Your task to perform on an android device: What's the weather? Image 0: 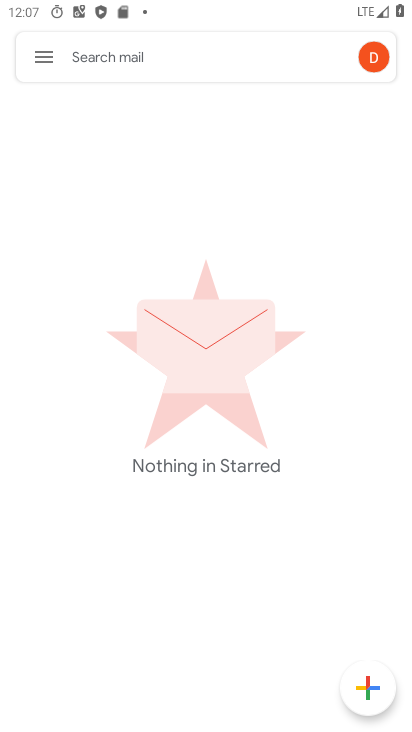
Step 0: press home button
Your task to perform on an android device: What's the weather? Image 1: 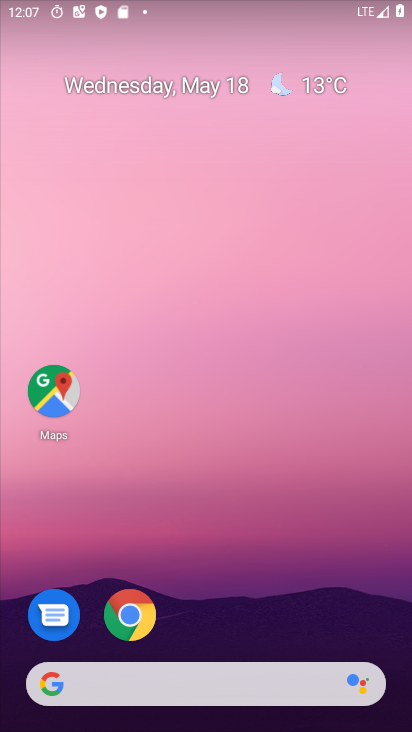
Step 1: click (321, 86)
Your task to perform on an android device: What's the weather? Image 2: 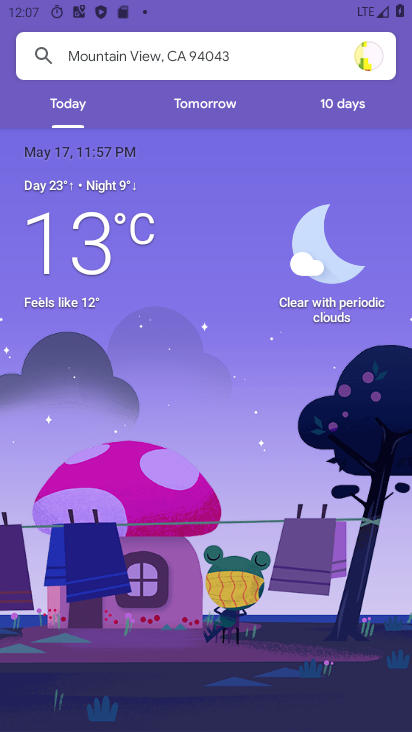
Step 2: task complete